Your task to perform on an android device: Is it going to rain this weekend? Image 0: 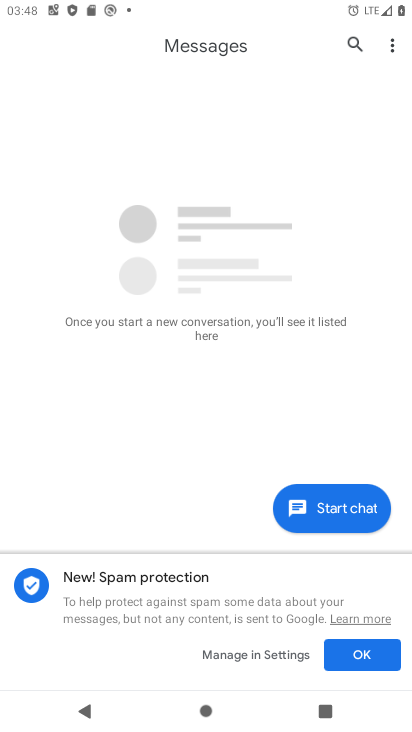
Step 0: press home button
Your task to perform on an android device: Is it going to rain this weekend? Image 1: 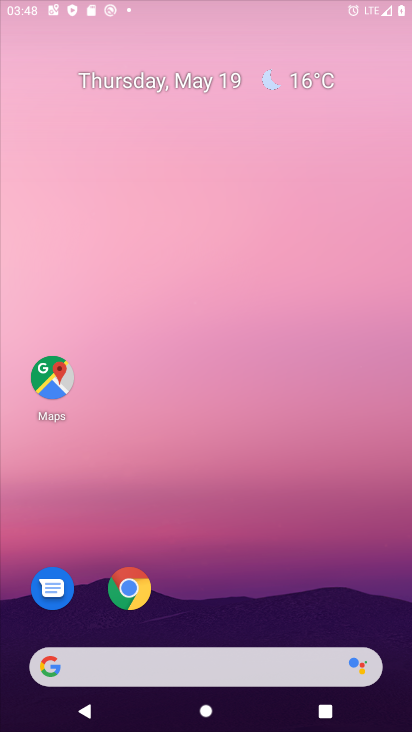
Step 1: drag from (357, 482) to (308, 285)
Your task to perform on an android device: Is it going to rain this weekend? Image 2: 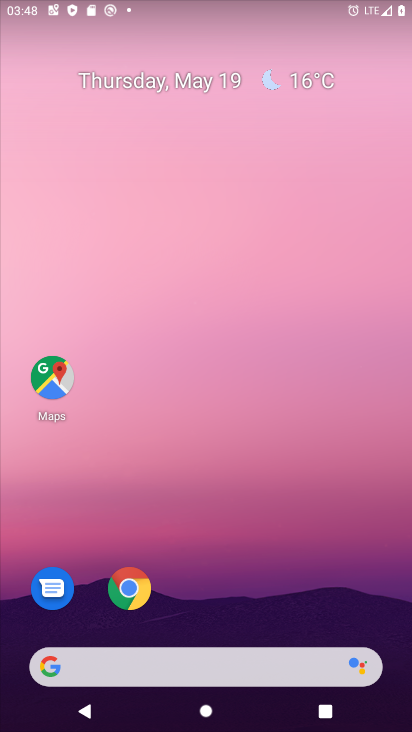
Step 2: click (302, 81)
Your task to perform on an android device: Is it going to rain this weekend? Image 3: 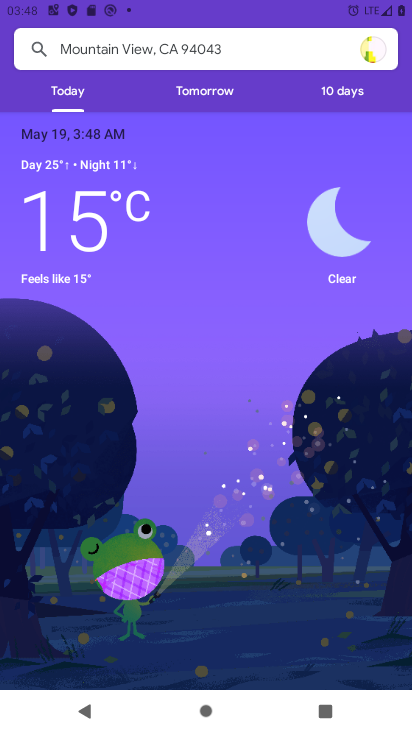
Step 3: click (361, 100)
Your task to perform on an android device: Is it going to rain this weekend? Image 4: 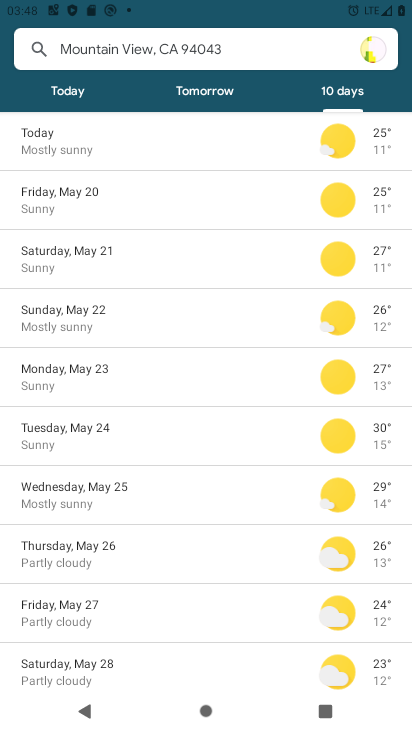
Step 4: click (95, 315)
Your task to perform on an android device: Is it going to rain this weekend? Image 5: 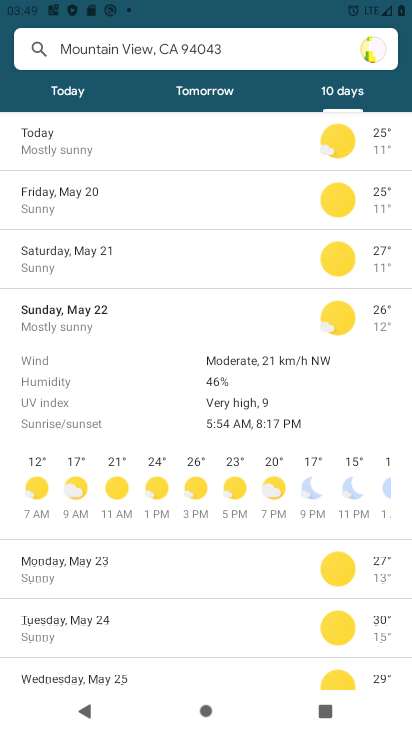
Step 5: task complete